Your task to perform on an android device: turn off picture-in-picture Image 0: 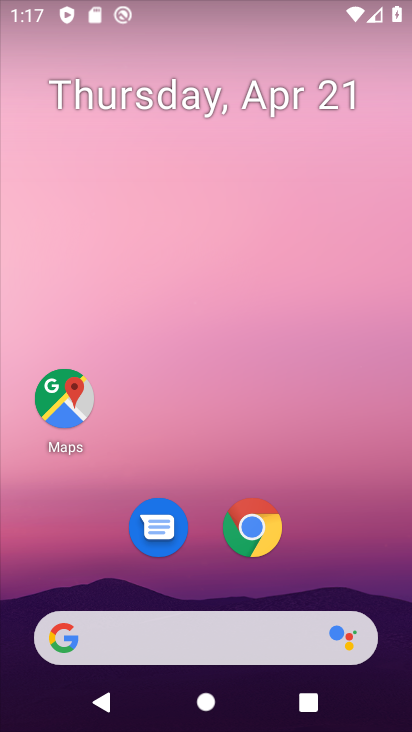
Step 0: drag from (342, 555) to (371, 97)
Your task to perform on an android device: turn off picture-in-picture Image 1: 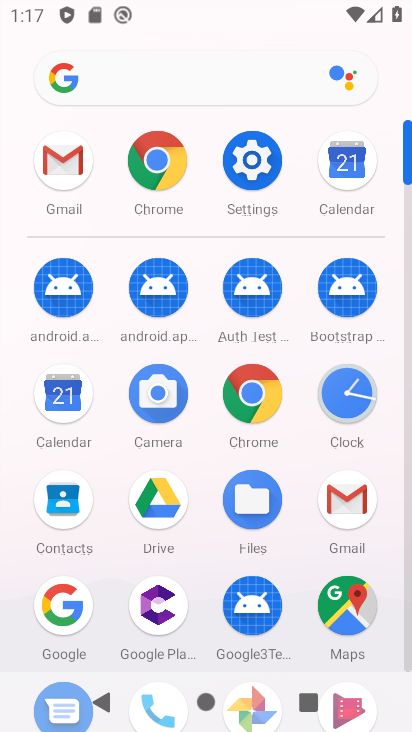
Step 1: click (255, 163)
Your task to perform on an android device: turn off picture-in-picture Image 2: 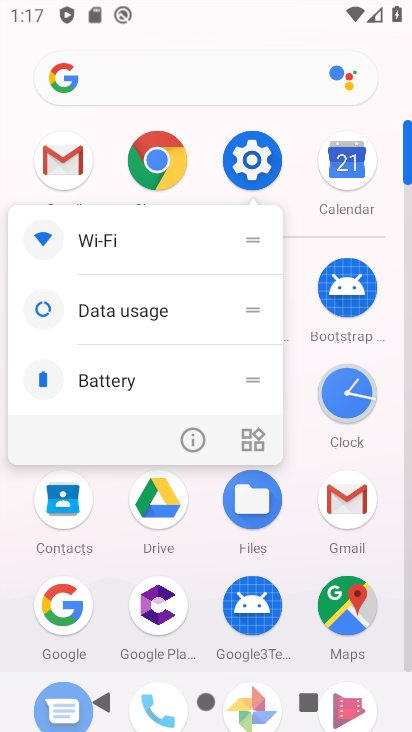
Step 2: click (255, 163)
Your task to perform on an android device: turn off picture-in-picture Image 3: 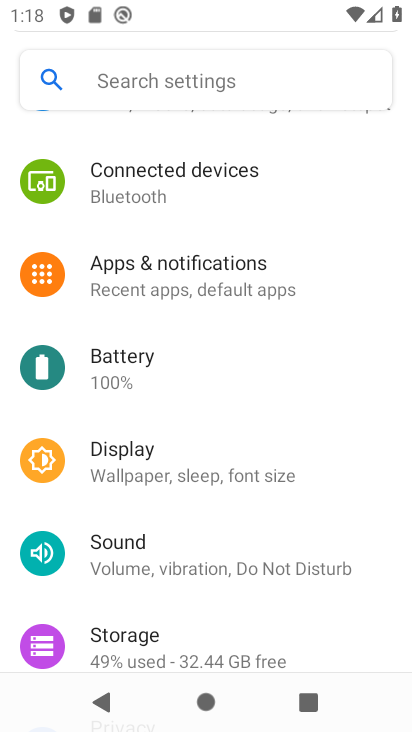
Step 3: drag from (361, 509) to (351, 341)
Your task to perform on an android device: turn off picture-in-picture Image 4: 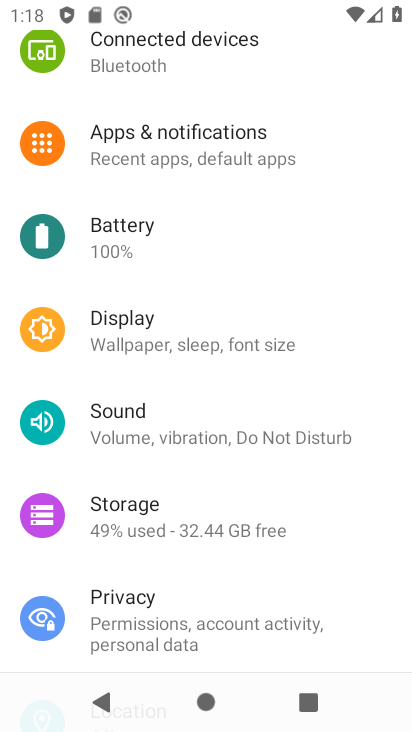
Step 4: drag from (358, 539) to (385, 332)
Your task to perform on an android device: turn off picture-in-picture Image 5: 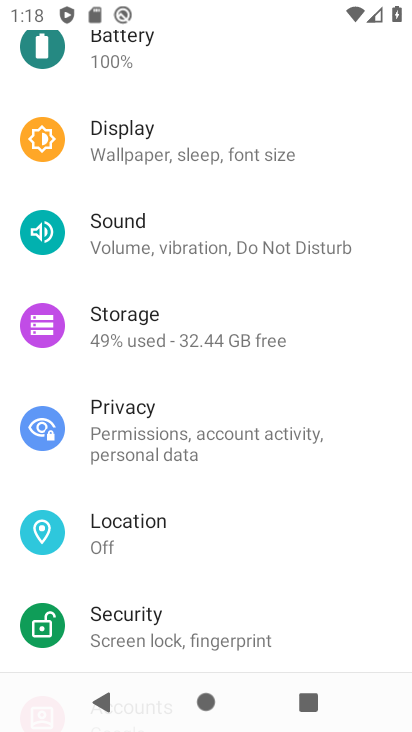
Step 5: drag from (361, 585) to (365, 300)
Your task to perform on an android device: turn off picture-in-picture Image 6: 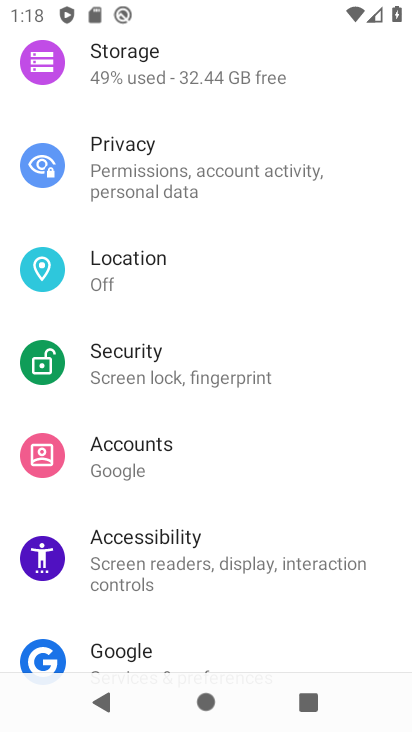
Step 6: drag from (316, 430) to (322, 315)
Your task to perform on an android device: turn off picture-in-picture Image 7: 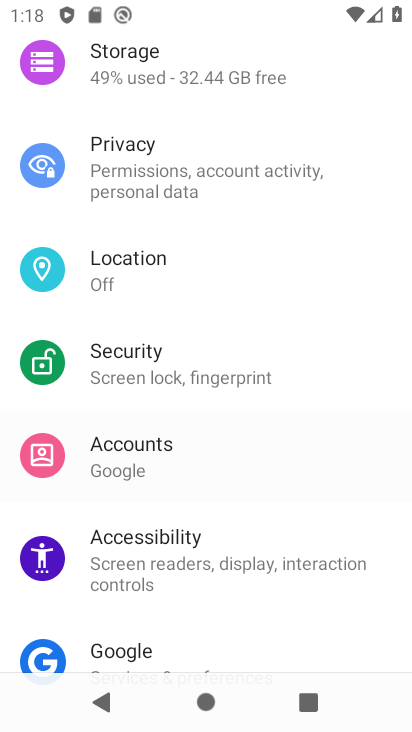
Step 7: drag from (346, 453) to (368, 271)
Your task to perform on an android device: turn off picture-in-picture Image 8: 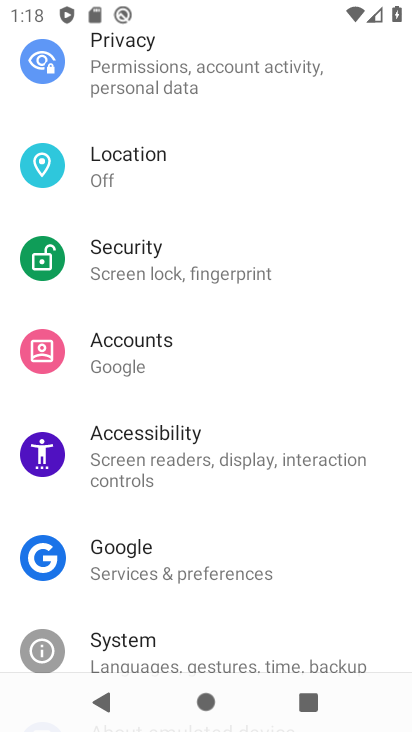
Step 8: drag from (375, 226) to (359, 538)
Your task to perform on an android device: turn off picture-in-picture Image 9: 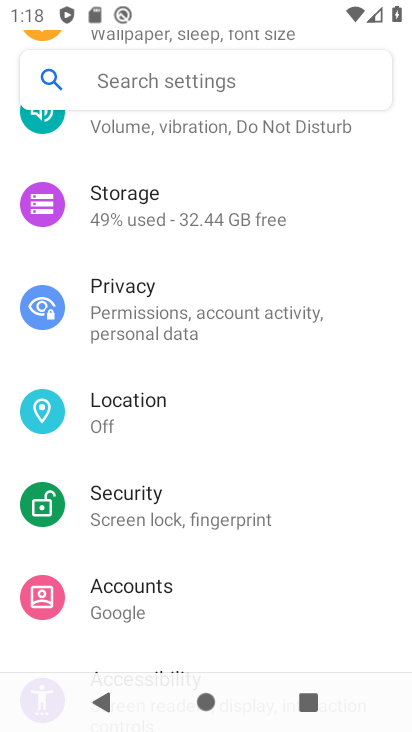
Step 9: drag from (372, 270) to (360, 481)
Your task to perform on an android device: turn off picture-in-picture Image 10: 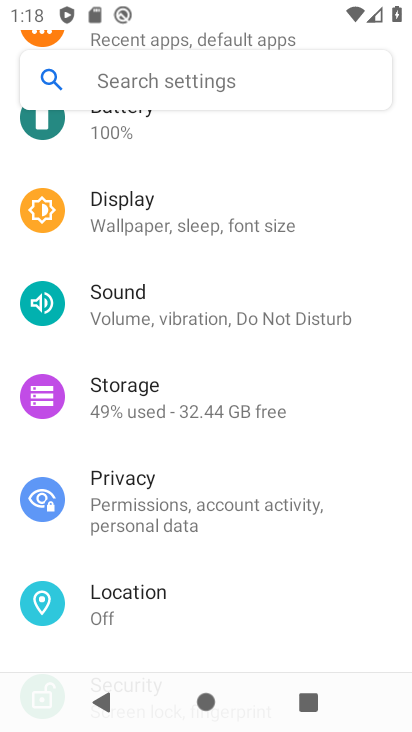
Step 10: drag from (379, 254) to (364, 454)
Your task to perform on an android device: turn off picture-in-picture Image 11: 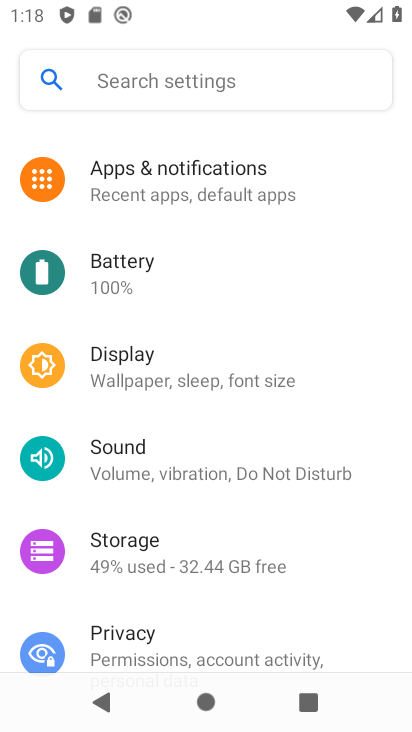
Step 11: drag from (368, 230) to (366, 417)
Your task to perform on an android device: turn off picture-in-picture Image 12: 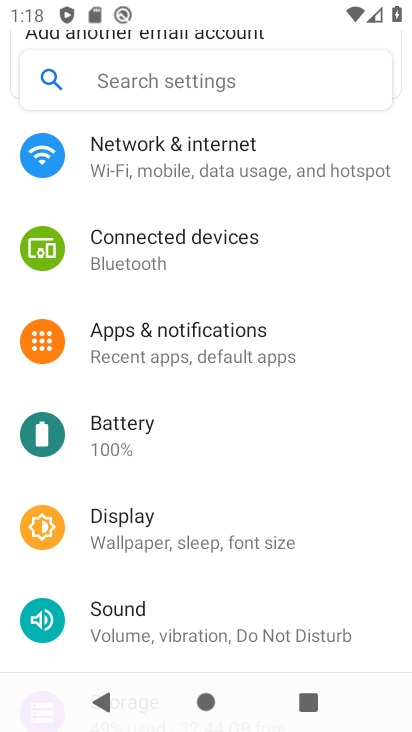
Step 12: drag from (368, 251) to (385, 424)
Your task to perform on an android device: turn off picture-in-picture Image 13: 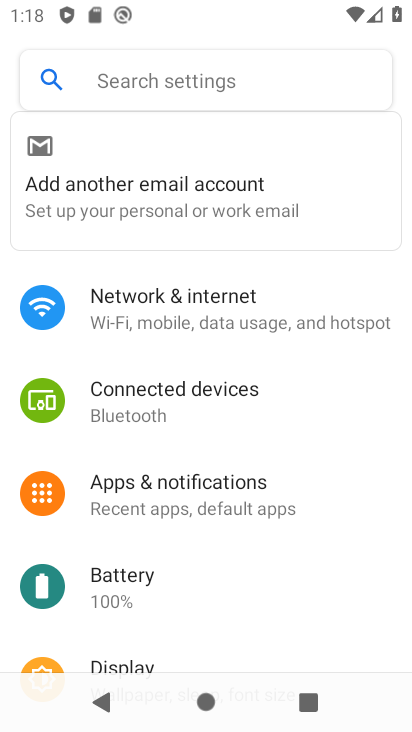
Step 13: click (249, 480)
Your task to perform on an android device: turn off picture-in-picture Image 14: 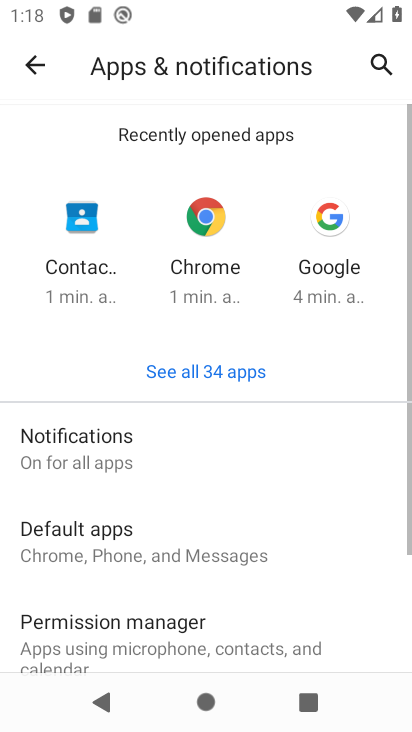
Step 14: drag from (300, 571) to (333, 346)
Your task to perform on an android device: turn off picture-in-picture Image 15: 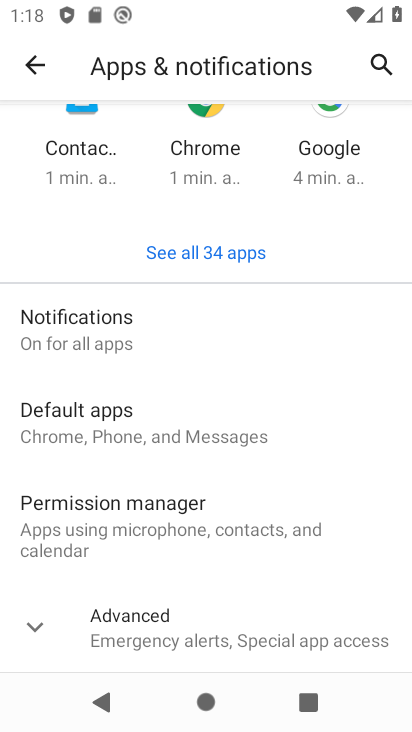
Step 15: click (118, 621)
Your task to perform on an android device: turn off picture-in-picture Image 16: 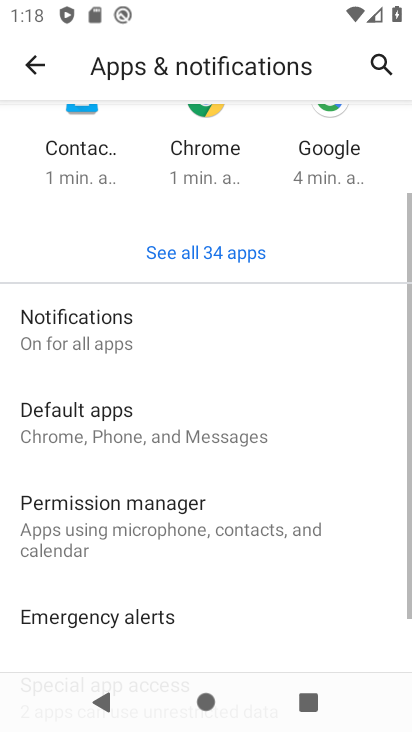
Step 16: drag from (283, 593) to (334, 280)
Your task to perform on an android device: turn off picture-in-picture Image 17: 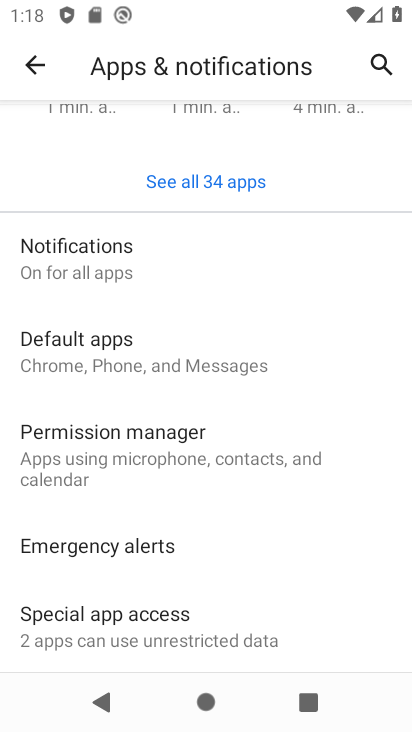
Step 17: click (160, 634)
Your task to perform on an android device: turn off picture-in-picture Image 18: 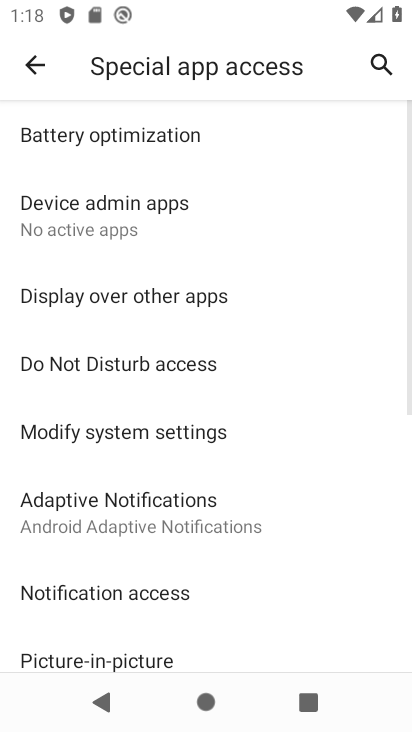
Step 18: drag from (332, 583) to (349, 323)
Your task to perform on an android device: turn off picture-in-picture Image 19: 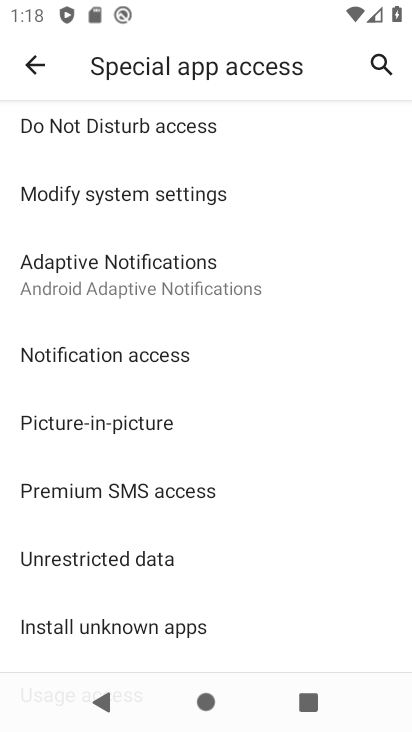
Step 19: drag from (295, 551) to (304, 421)
Your task to perform on an android device: turn off picture-in-picture Image 20: 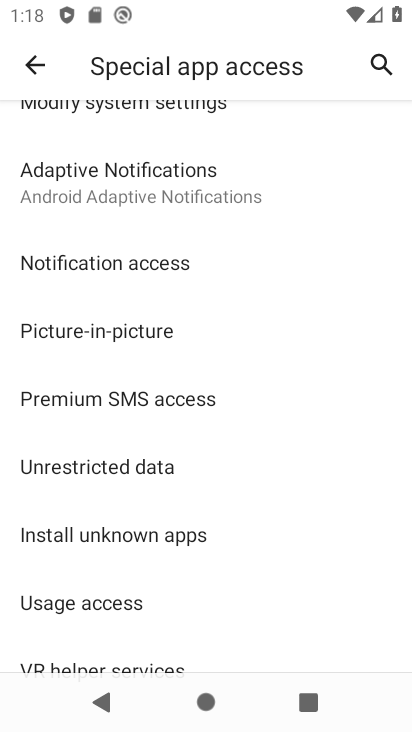
Step 20: click (135, 337)
Your task to perform on an android device: turn off picture-in-picture Image 21: 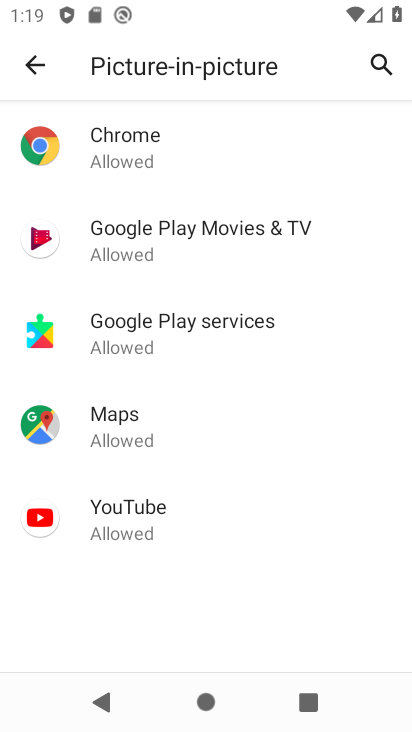
Step 21: click (127, 505)
Your task to perform on an android device: turn off picture-in-picture Image 22: 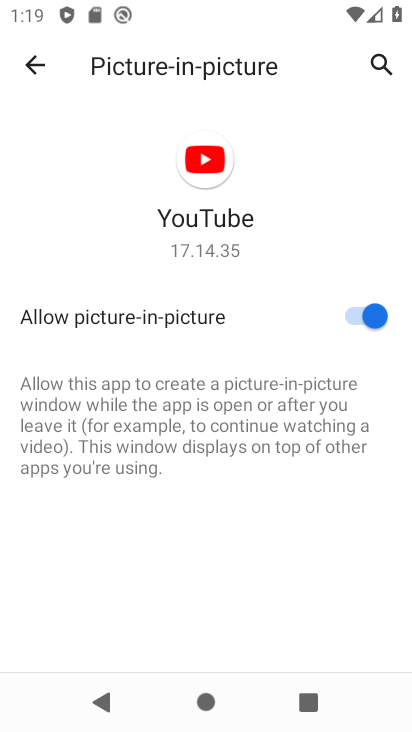
Step 22: click (346, 316)
Your task to perform on an android device: turn off picture-in-picture Image 23: 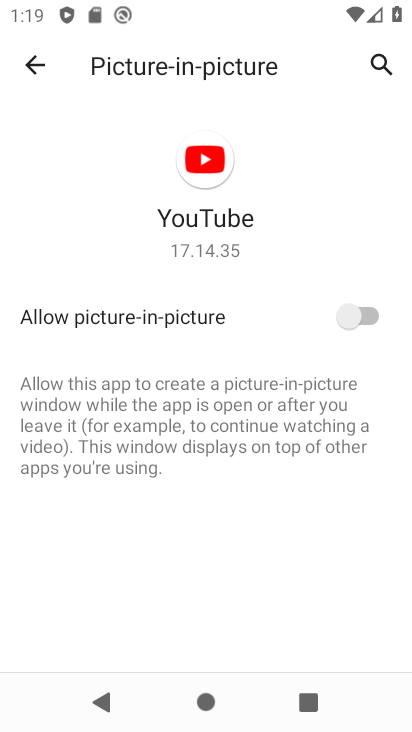
Step 23: task complete